Your task to perform on an android device: install app "Google Chrome" Image 0: 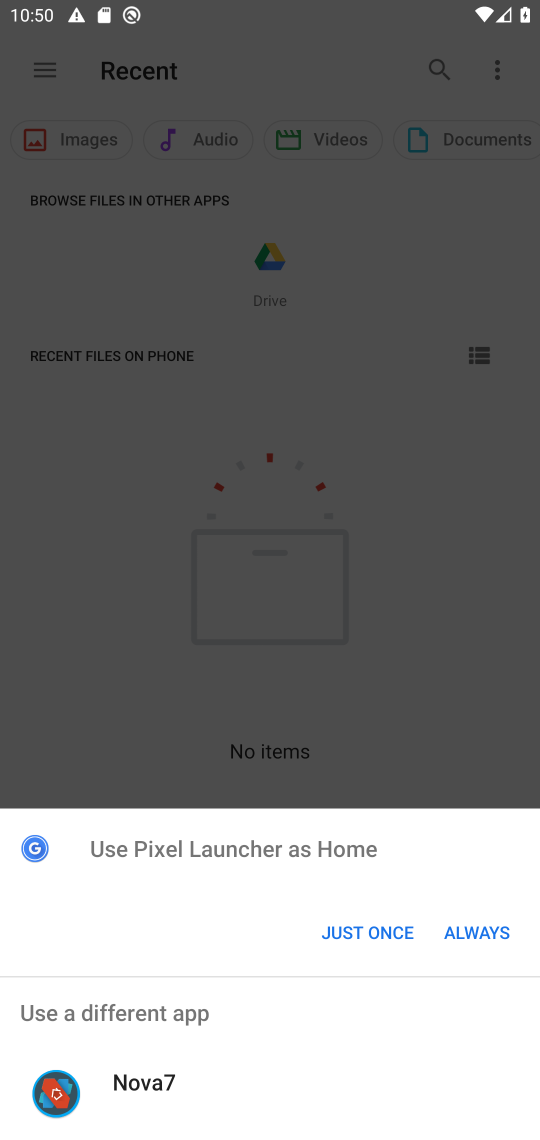
Step 0: click (327, 938)
Your task to perform on an android device: install app "Google Chrome" Image 1: 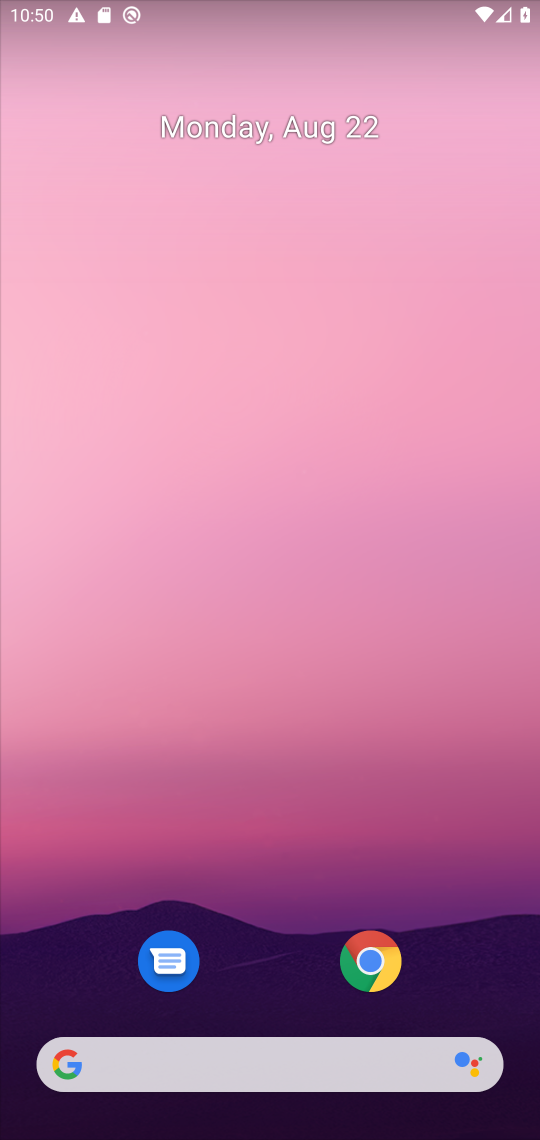
Step 1: click (350, 974)
Your task to perform on an android device: install app "Google Chrome" Image 2: 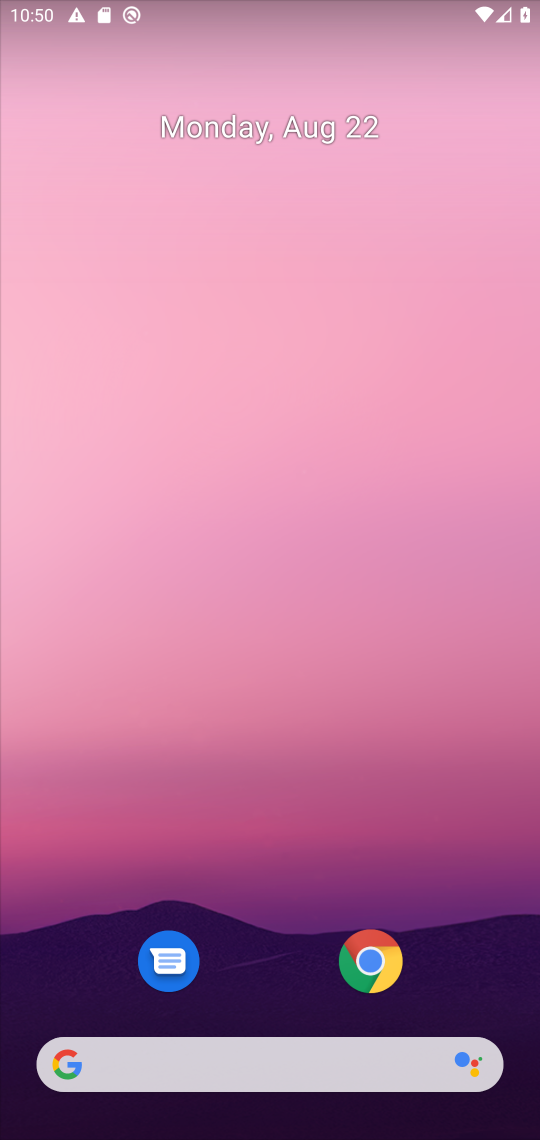
Step 2: task complete